Your task to perform on an android device: install app "Google Find My Device" Image 0: 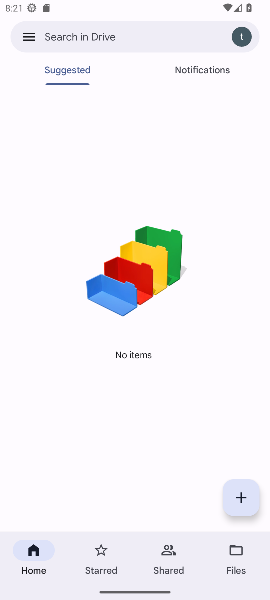
Step 0: press home button
Your task to perform on an android device: install app "Google Find My Device" Image 1: 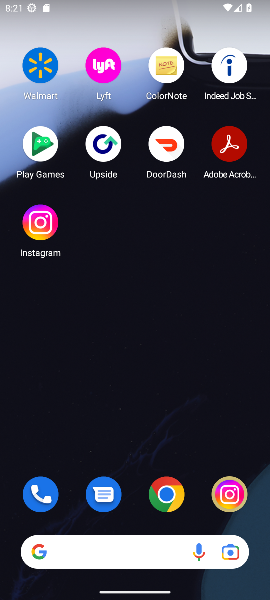
Step 1: drag from (200, 518) to (202, 190)
Your task to perform on an android device: install app "Google Find My Device" Image 2: 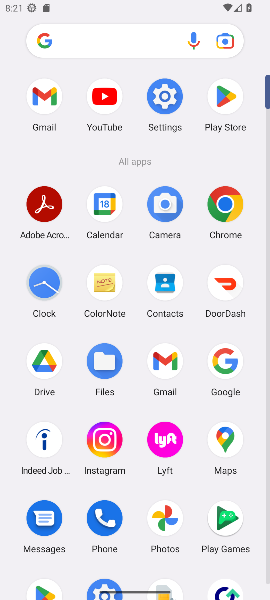
Step 2: drag from (190, 557) to (197, 316)
Your task to perform on an android device: install app "Google Find My Device" Image 3: 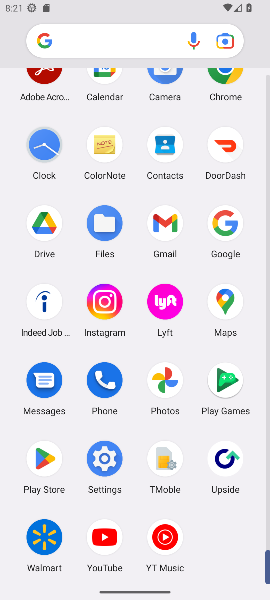
Step 3: click (41, 458)
Your task to perform on an android device: install app "Google Find My Device" Image 4: 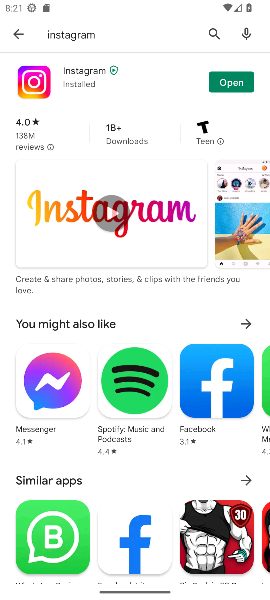
Step 4: click (212, 31)
Your task to perform on an android device: install app "Google Find My Device" Image 5: 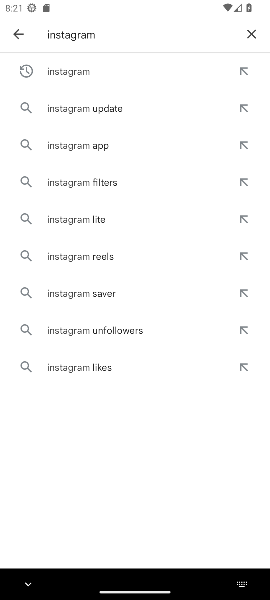
Step 5: click (245, 32)
Your task to perform on an android device: install app "Google Find My Device" Image 6: 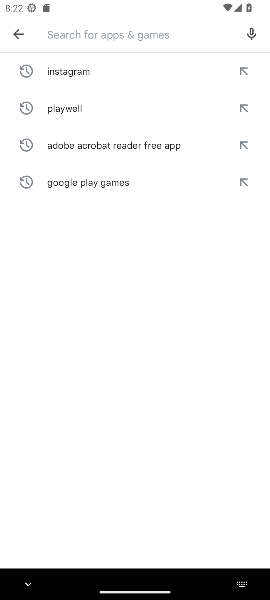
Step 6: type "Google Find My Device"
Your task to perform on an android device: install app "Google Find My Device" Image 7: 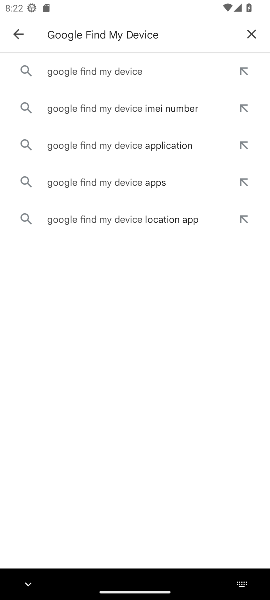
Step 7: click (94, 68)
Your task to perform on an android device: install app "Google Find My Device" Image 8: 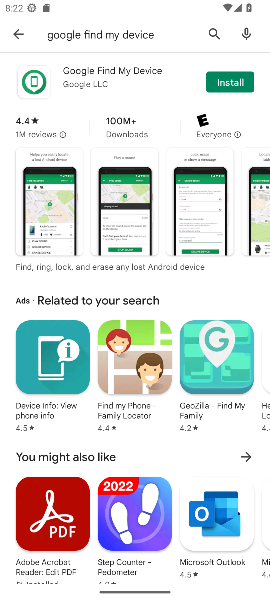
Step 8: click (228, 80)
Your task to perform on an android device: install app "Google Find My Device" Image 9: 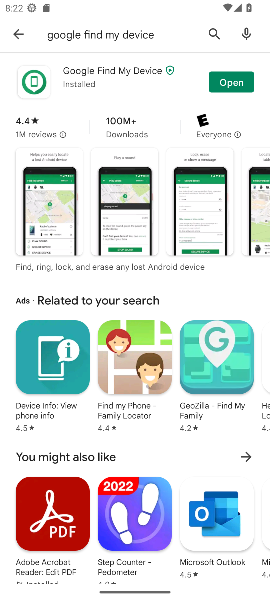
Step 9: task complete